Your task to perform on an android device: Turn off the flashlight Image 0: 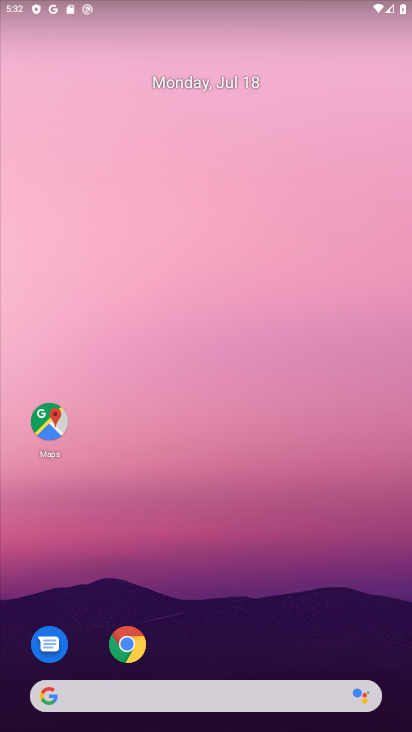
Step 0: press home button
Your task to perform on an android device: Turn off the flashlight Image 1: 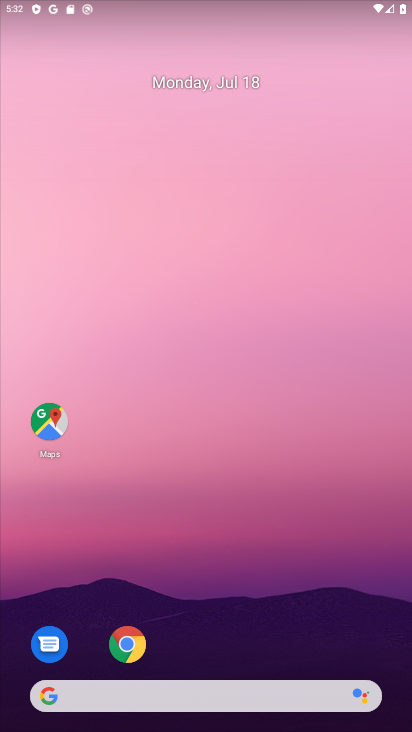
Step 1: task complete